Your task to perform on an android device: See recent photos Image 0: 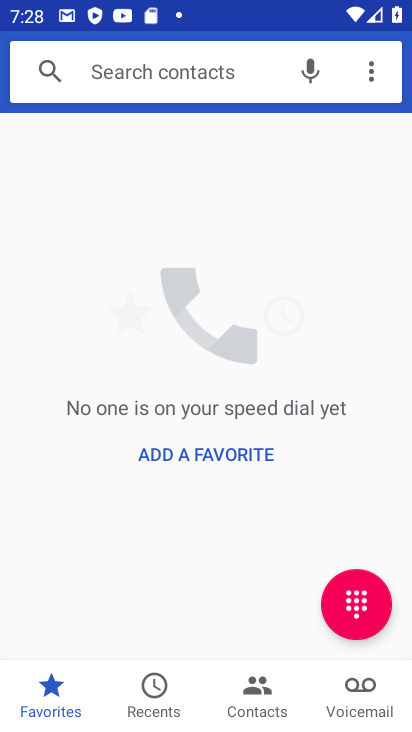
Step 0: press home button
Your task to perform on an android device: See recent photos Image 1: 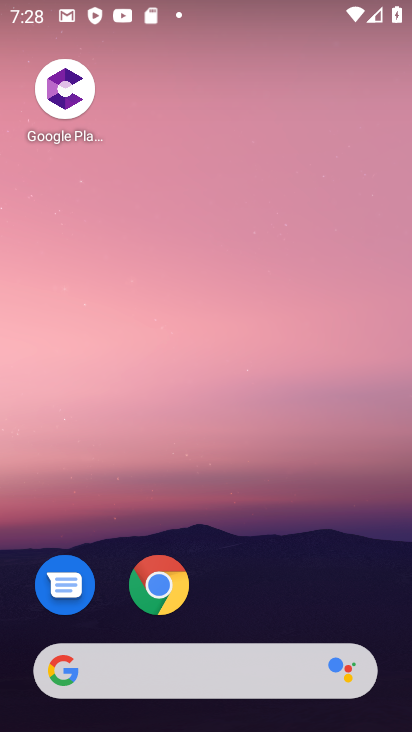
Step 1: drag from (250, 679) to (371, 204)
Your task to perform on an android device: See recent photos Image 2: 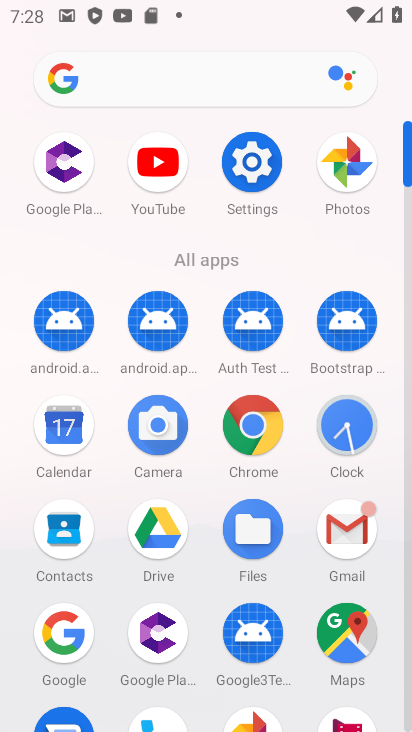
Step 2: click (330, 171)
Your task to perform on an android device: See recent photos Image 3: 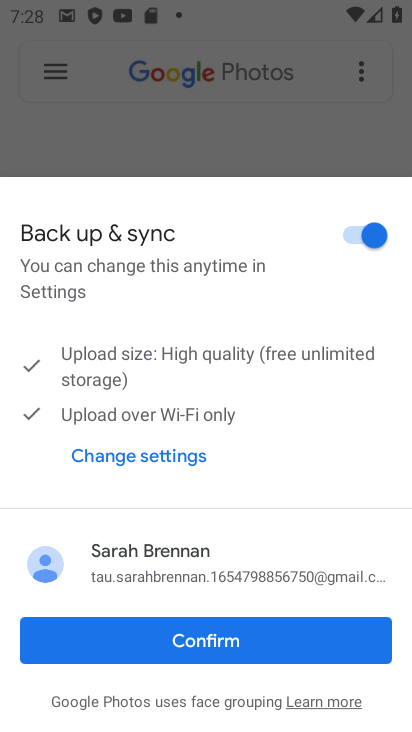
Step 3: click (213, 644)
Your task to perform on an android device: See recent photos Image 4: 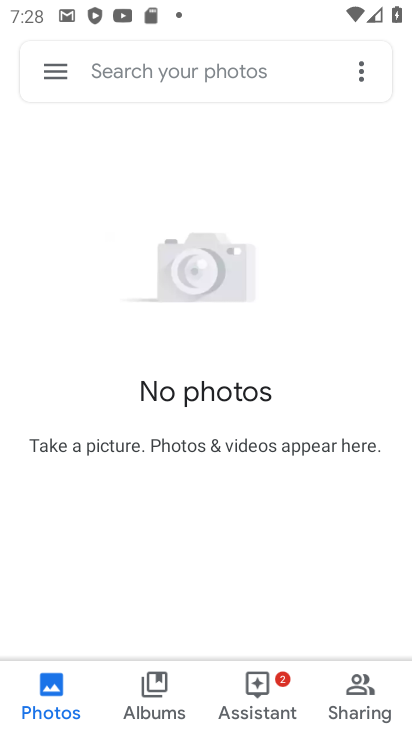
Step 4: click (163, 702)
Your task to perform on an android device: See recent photos Image 5: 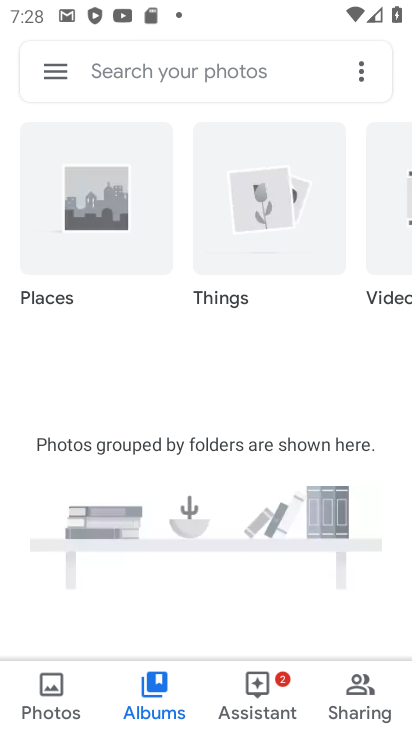
Step 5: task complete